Your task to perform on an android device: Open the calendar app, open the side menu, and click the "Day" option Image 0: 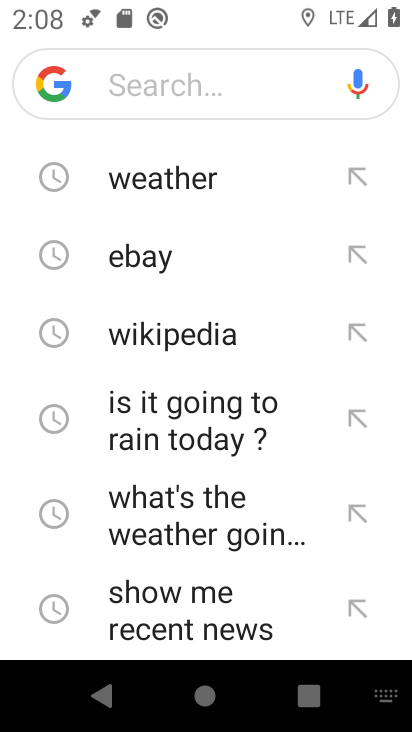
Step 0: press home button
Your task to perform on an android device: Open the calendar app, open the side menu, and click the "Day" option Image 1: 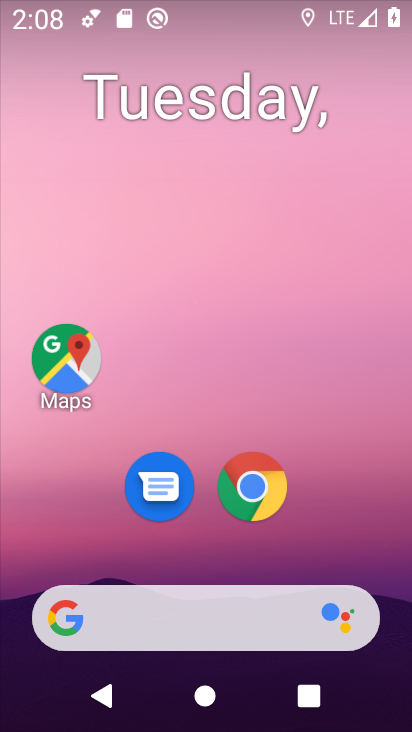
Step 1: drag from (360, 528) to (359, 79)
Your task to perform on an android device: Open the calendar app, open the side menu, and click the "Day" option Image 2: 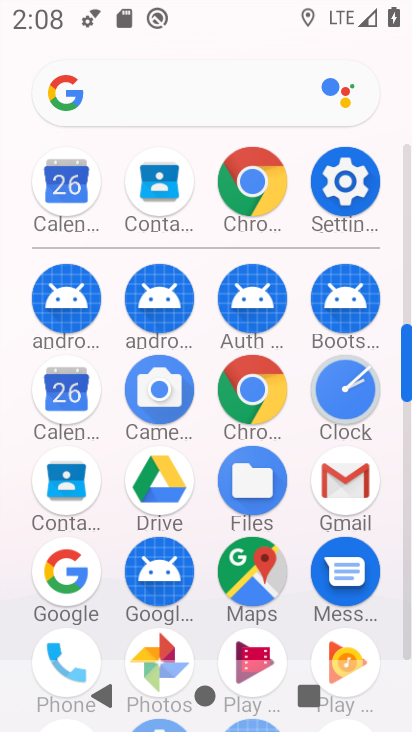
Step 2: click (76, 395)
Your task to perform on an android device: Open the calendar app, open the side menu, and click the "Day" option Image 3: 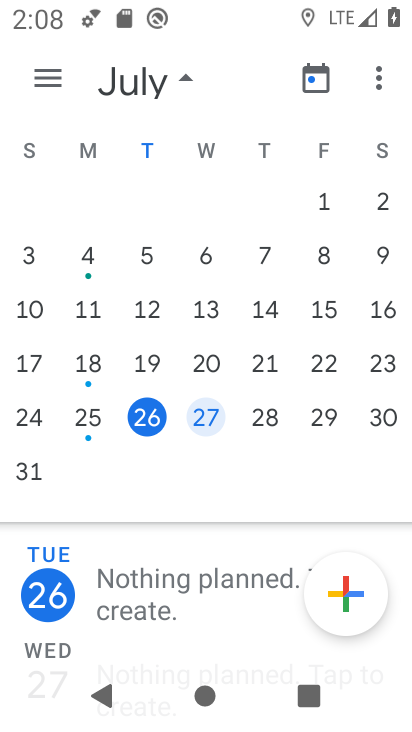
Step 3: click (54, 76)
Your task to perform on an android device: Open the calendar app, open the side menu, and click the "Day" option Image 4: 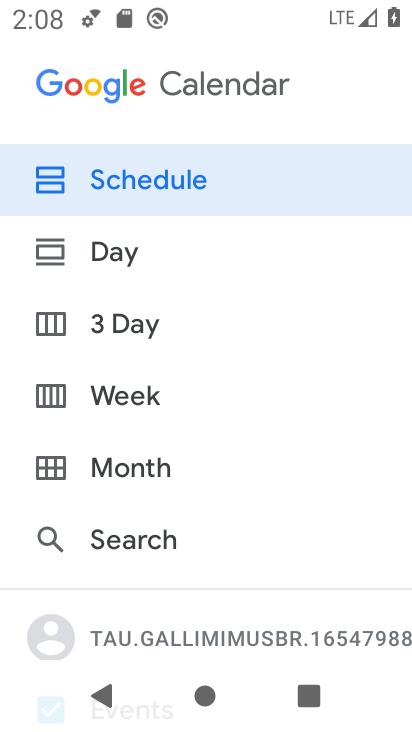
Step 4: click (176, 261)
Your task to perform on an android device: Open the calendar app, open the side menu, and click the "Day" option Image 5: 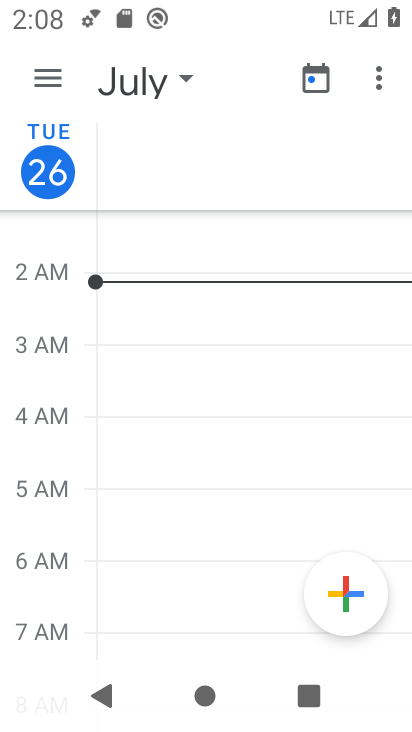
Step 5: task complete